Your task to perform on an android device: Open battery settings Image 0: 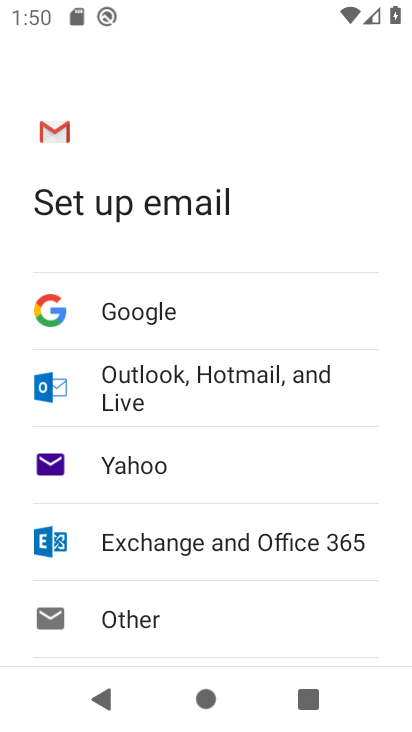
Step 0: press home button
Your task to perform on an android device: Open battery settings Image 1: 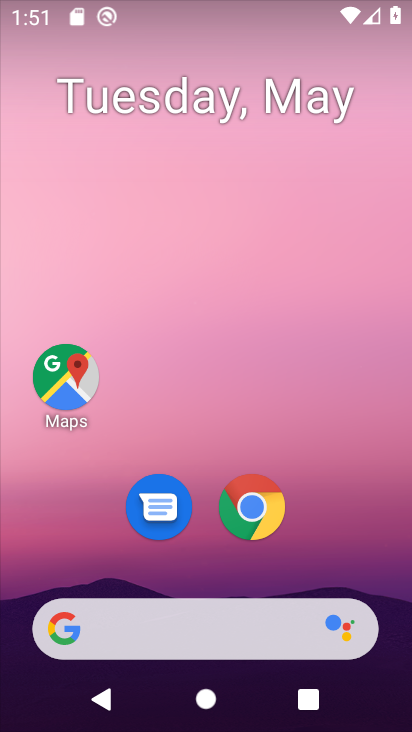
Step 1: drag from (197, 574) to (200, 119)
Your task to perform on an android device: Open battery settings Image 2: 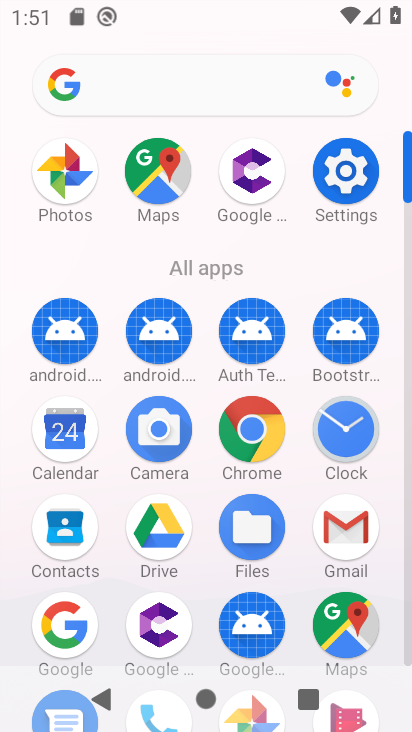
Step 2: click (323, 163)
Your task to perform on an android device: Open battery settings Image 3: 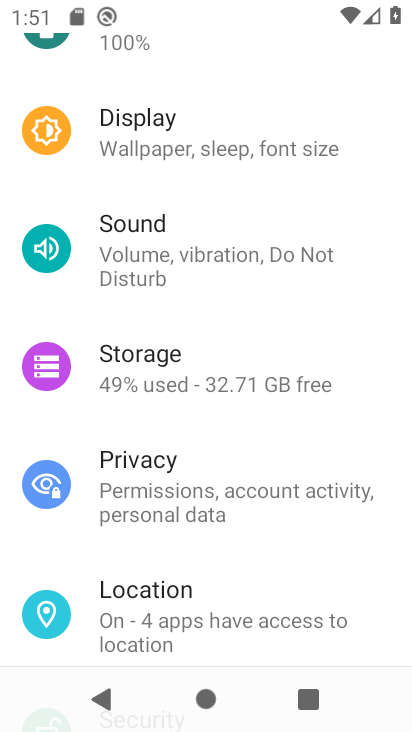
Step 3: drag from (226, 215) to (228, 484)
Your task to perform on an android device: Open battery settings Image 4: 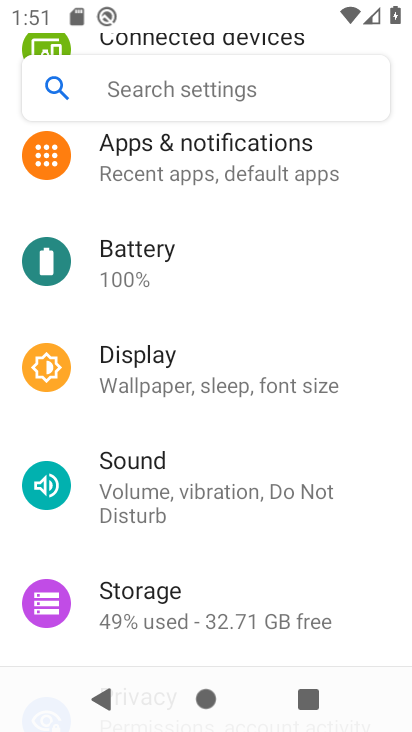
Step 4: click (194, 274)
Your task to perform on an android device: Open battery settings Image 5: 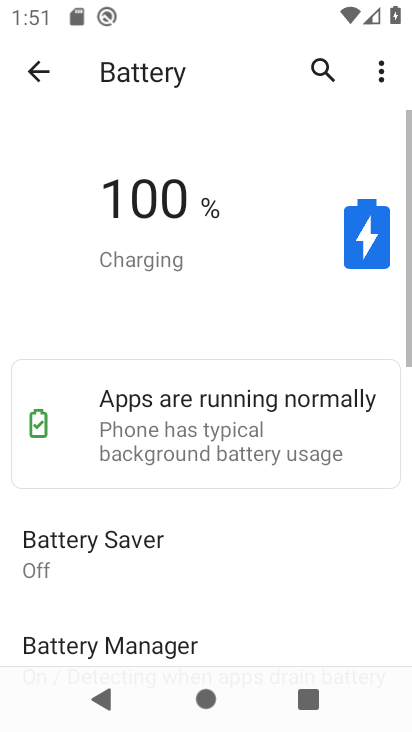
Step 5: task complete